Your task to perform on an android device: Open Android settings Image 0: 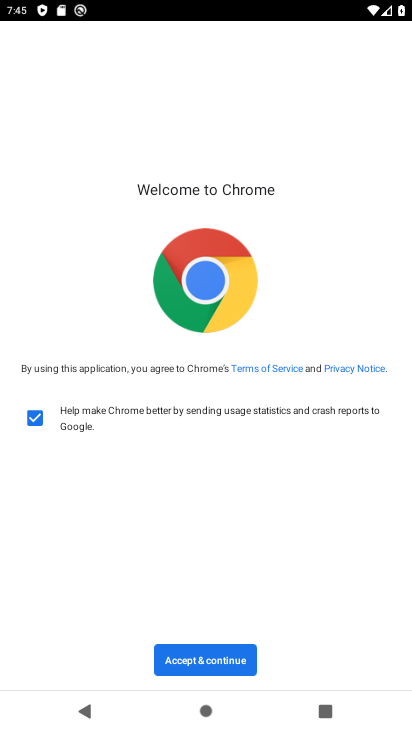
Step 0: press home button
Your task to perform on an android device: Open Android settings Image 1: 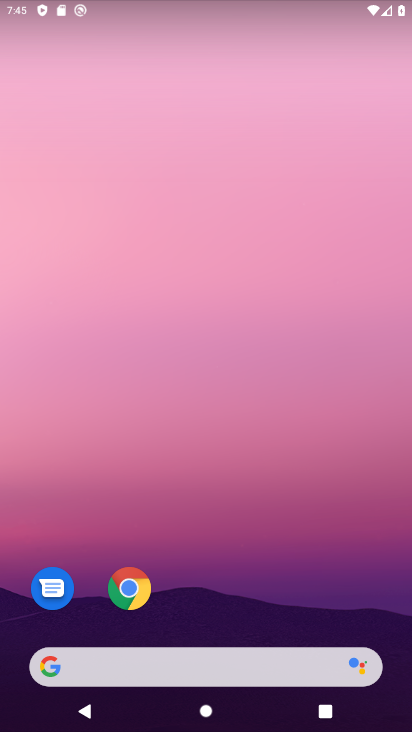
Step 1: drag from (254, 538) to (182, 27)
Your task to perform on an android device: Open Android settings Image 2: 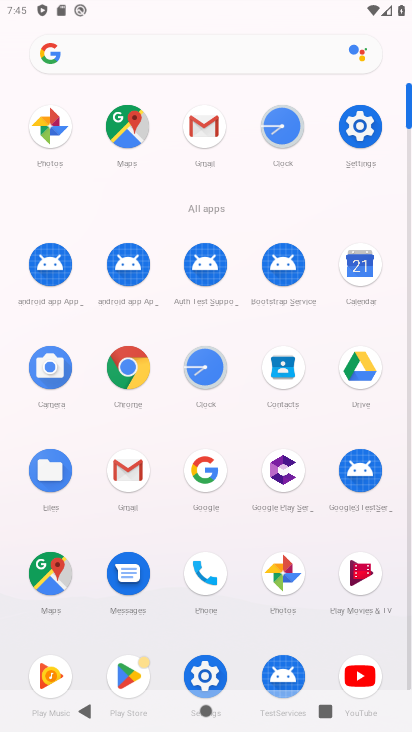
Step 2: click (361, 123)
Your task to perform on an android device: Open Android settings Image 3: 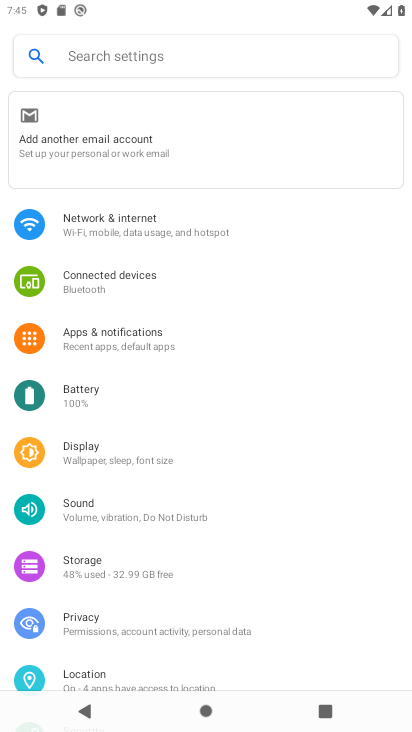
Step 3: task complete